Your task to perform on an android device: check android version Image 0: 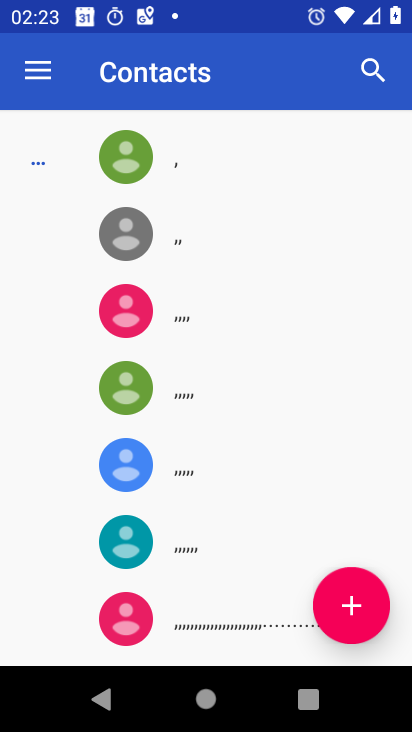
Step 0: press home button
Your task to perform on an android device: check android version Image 1: 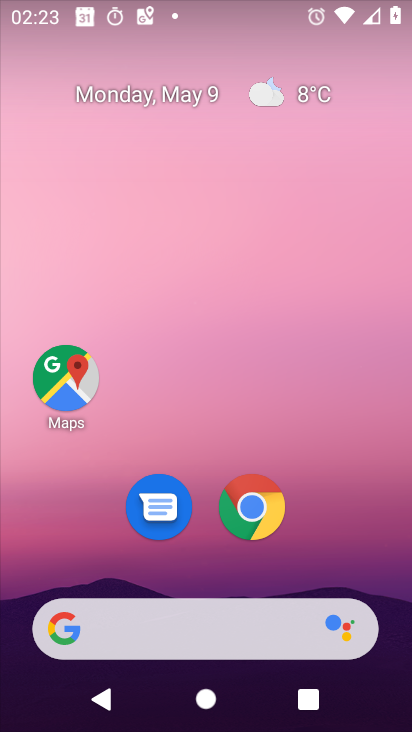
Step 1: drag from (226, 725) to (222, 58)
Your task to perform on an android device: check android version Image 2: 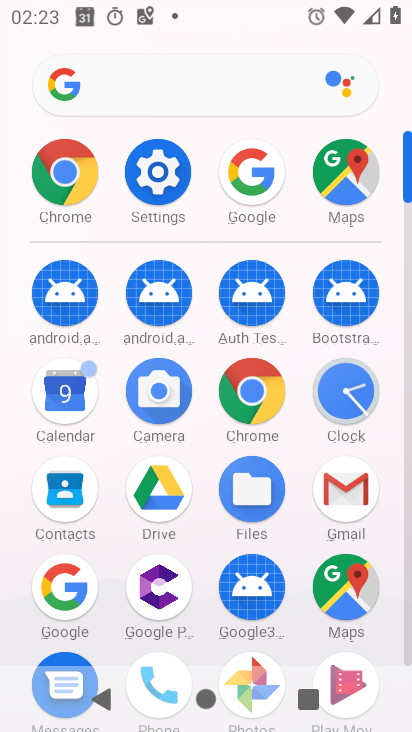
Step 2: click (153, 168)
Your task to perform on an android device: check android version Image 3: 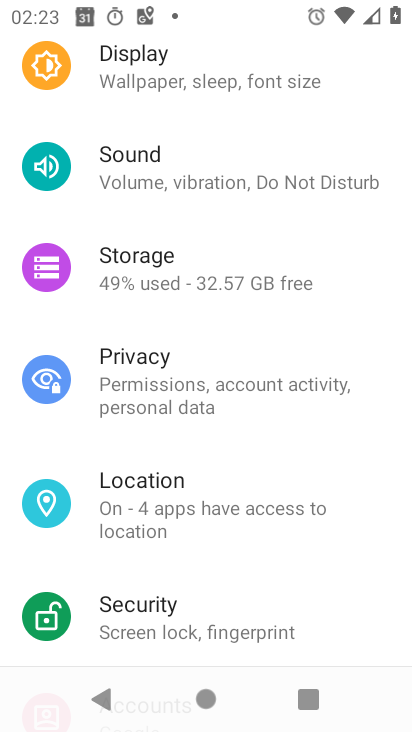
Step 3: drag from (177, 636) to (187, 263)
Your task to perform on an android device: check android version Image 4: 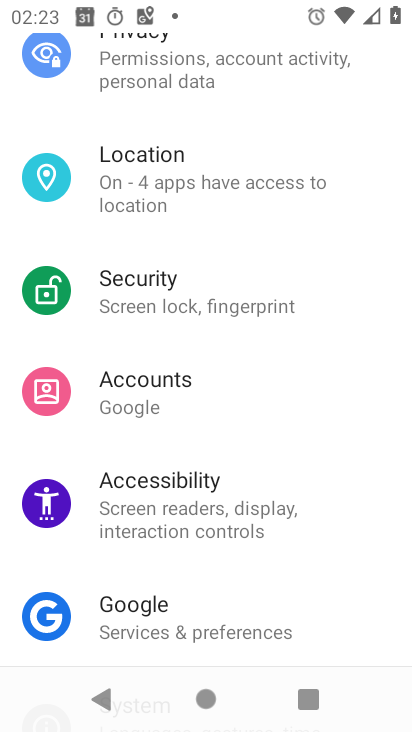
Step 4: drag from (216, 620) to (214, 208)
Your task to perform on an android device: check android version Image 5: 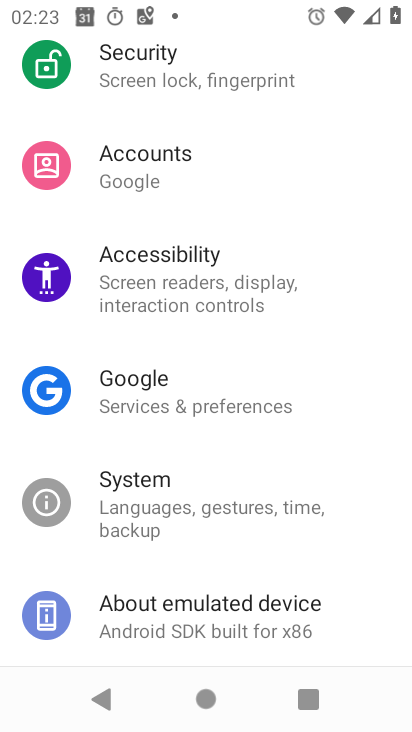
Step 5: drag from (215, 647) to (228, 323)
Your task to perform on an android device: check android version Image 6: 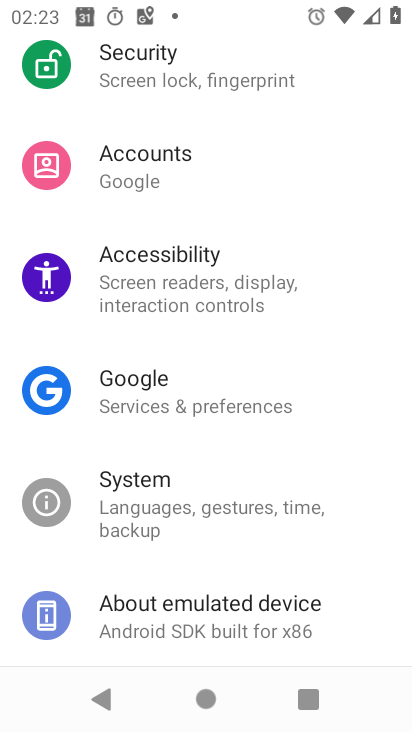
Step 6: click (179, 608)
Your task to perform on an android device: check android version Image 7: 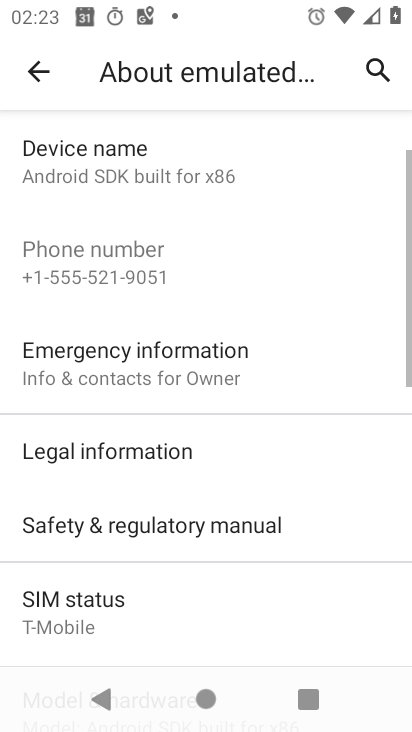
Step 7: drag from (176, 626) to (177, 237)
Your task to perform on an android device: check android version Image 8: 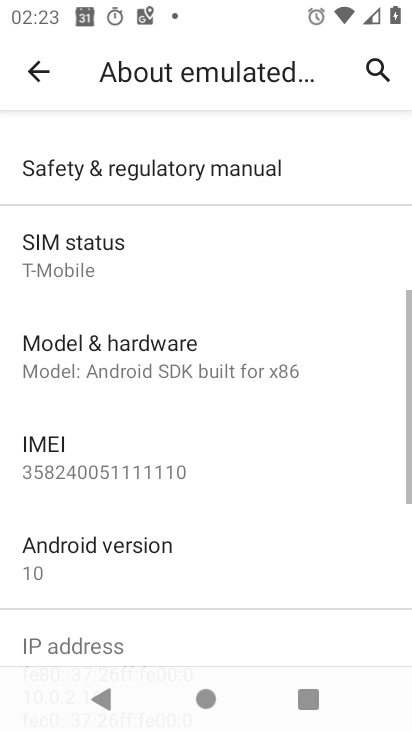
Step 8: click (96, 540)
Your task to perform on an android device: check android version Image 9: 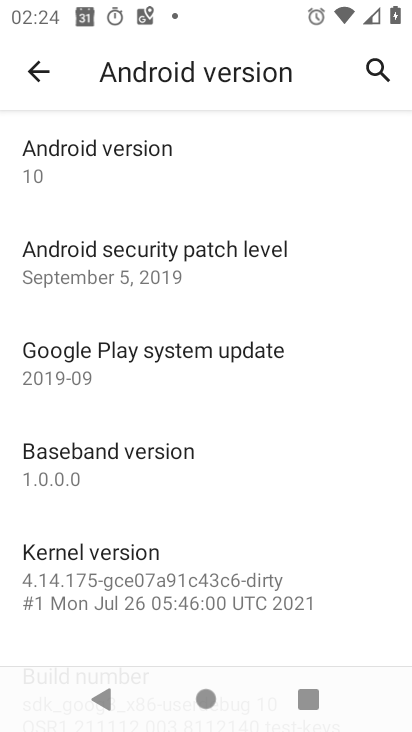
Step 9: click (94, 143)
Your task to perform on an android device: check android version Image 10: 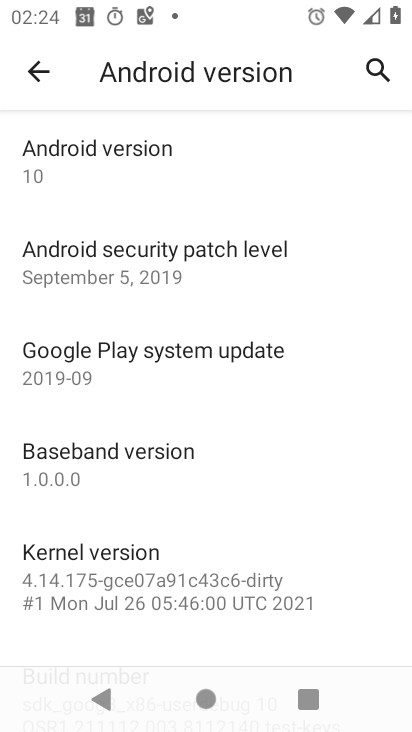
Step 10: task complete